Your task to perform on an android device: Open Google Maps Image 0: 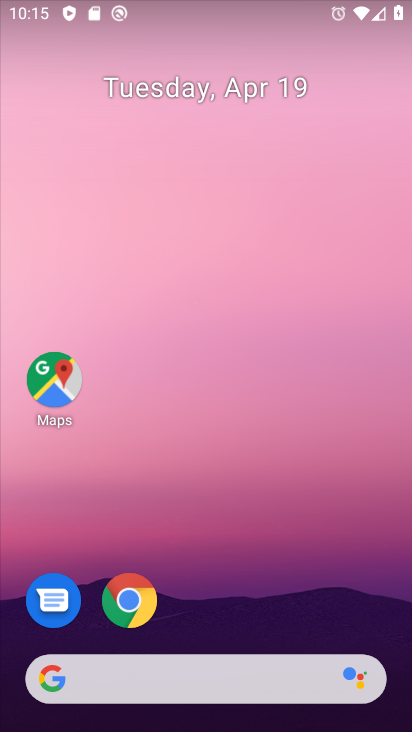
Step 0: click (74, 366)
Your task to perform on an android device: Open Google Maps Image 1: 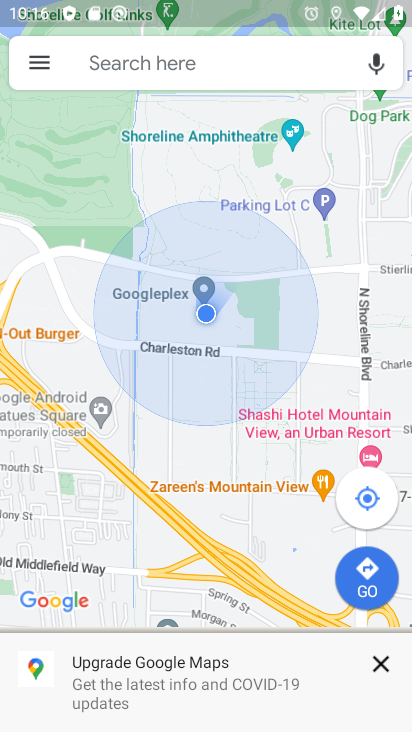
Step 1: task complete